Your task to perform on an android device: Open eBay Image 0: 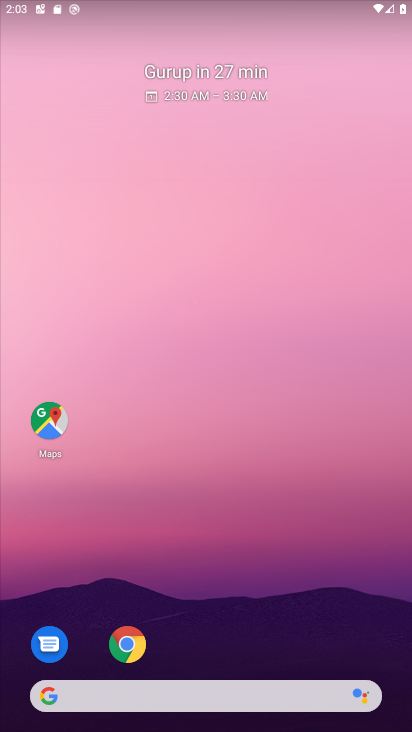
Step 0: click (267, 138)
Your task to perform on an android device: Open eBay Image 1: 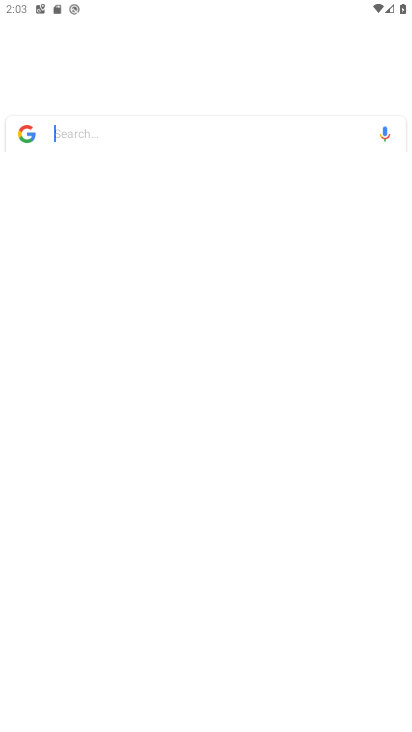
Step 1: drag from (265, 608) to (245, 63)
Your task to perform on an android device: Open eBay Image 2: 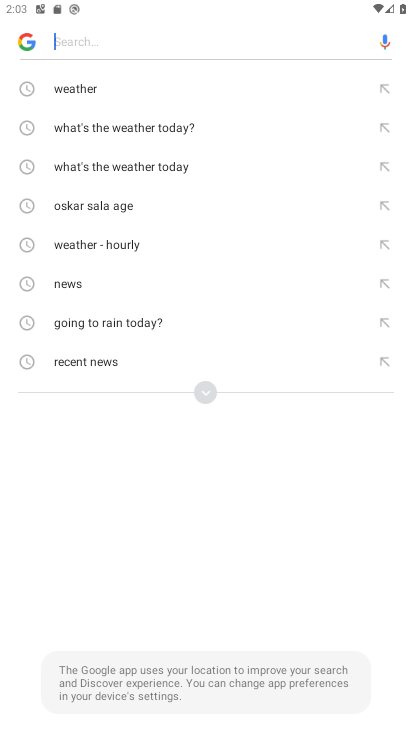
Step 2: click (228, 494)
Your task to perform on an android device: Open eBay Image 3: 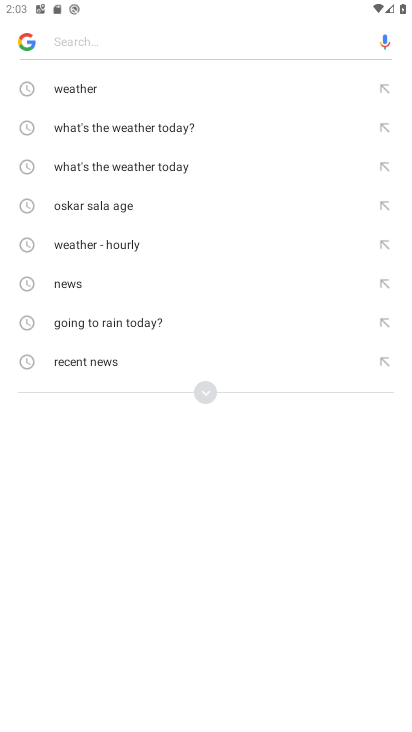
Step 3: press back button
Your task to perform on an android device: Open eBay Image 4: 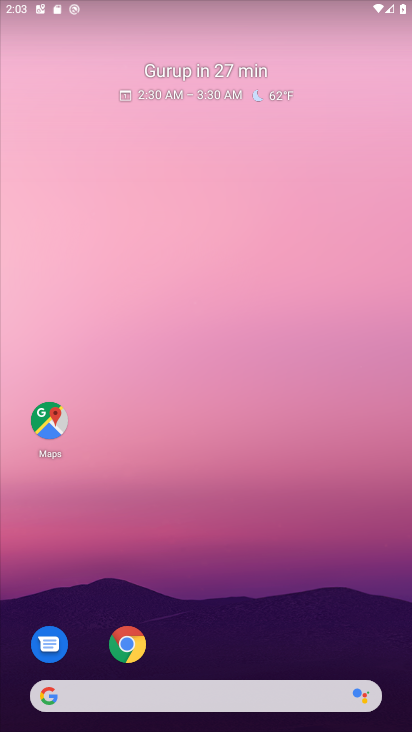
Step 4: drag from (165, 590) to (178, 148)
Your task to perform on an android device: Open eBay Image 5: 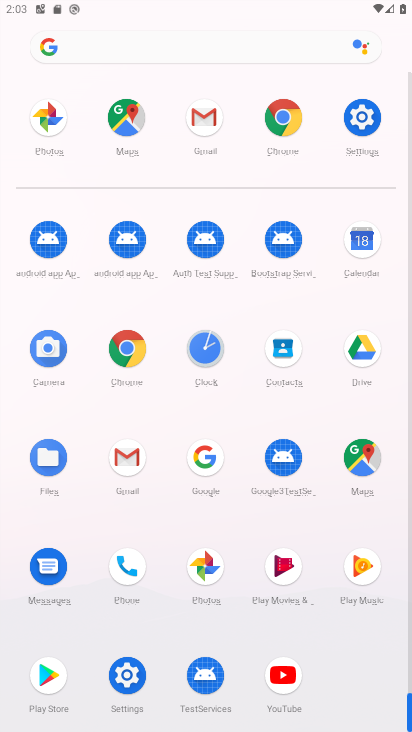
Step 5: click (274, 116)
Your task to perform on an android device: Open eBay Image 6: 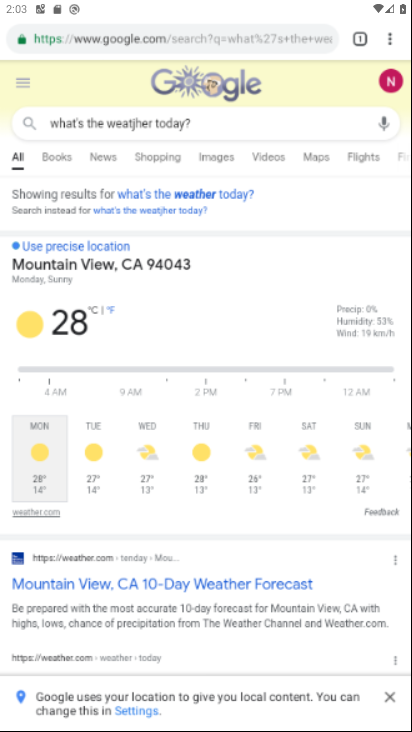
Step 6: click (275, 116)
Your task to perform on an android device: Open eBay Image 7: 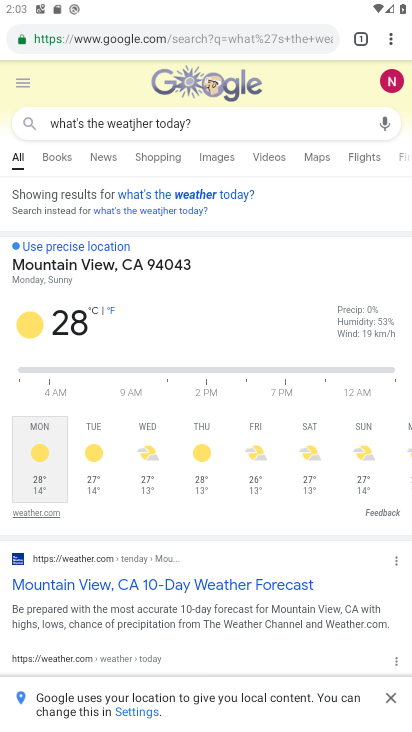
Step 7: drag from (393, 34) to (238, 121)
Your task to perform on an android device: Open eBay Image 8: 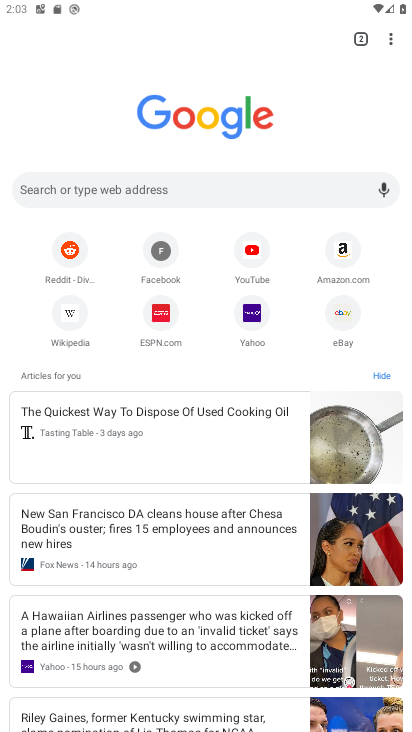
Step 8: click (346, 308)
Your task to perform on an android device: Open eBay Image 9: 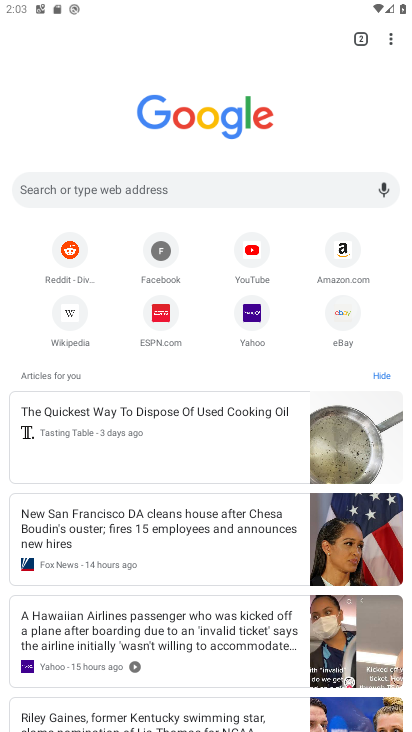
Step 9: click (346, 308)
Your task to perform on an android device: Open eBay Image 10: 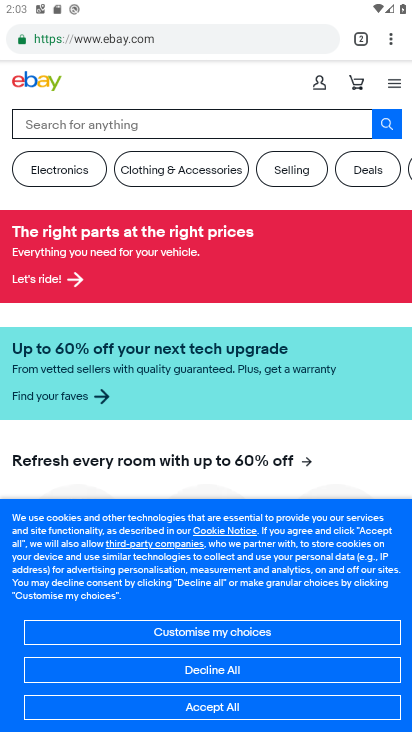
Step 10: task complete